Your task to perform on an android device: set the stopwatch Image 0: 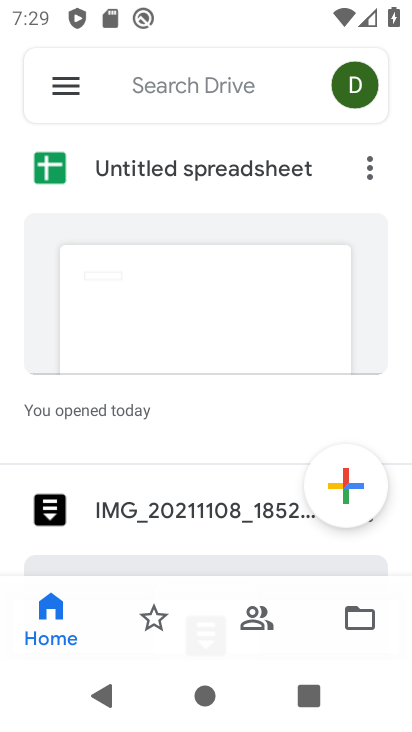
Step 0: press home button
Your task to perform on an android device: set the stopwatch Image 1: 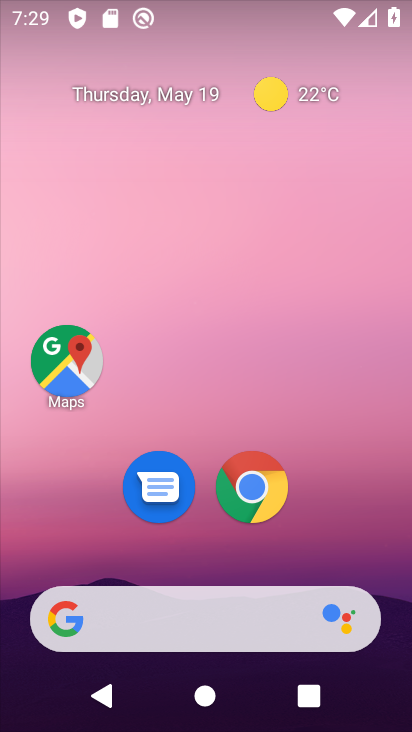
Step 1: drag from (320, 213) to (378, 47)
Your task to perform on an android device: set the stopwatch Image 2: 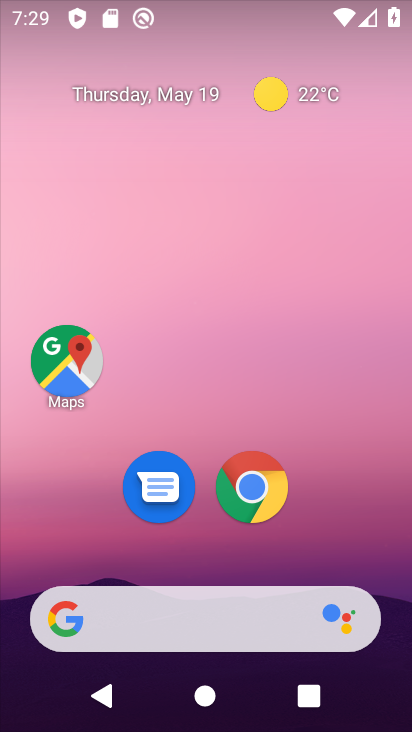
Step 2: drag from (200, 602) to (353, 112)
Your task to perform on an android device: set the stopwatch Image 3: 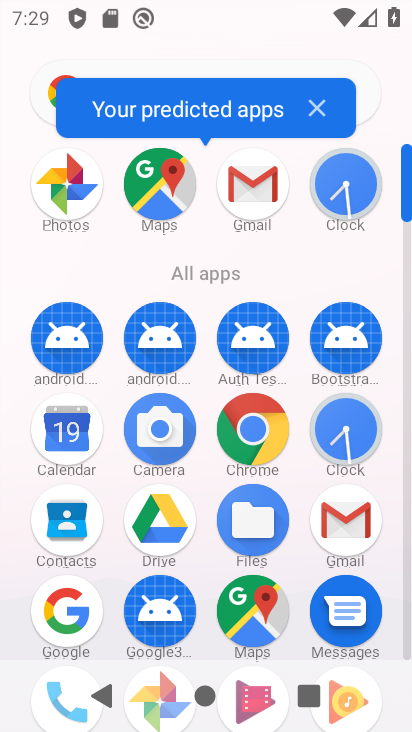
Step 3: click (344, 199)
Your task to perform on an android device: set the stopwatch Image 4: 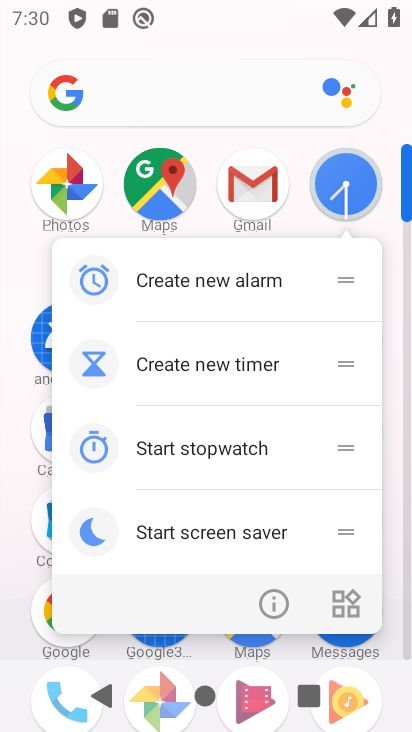
Step 4: click (345, 196)
Your task to perform on an android device: set the stopwatch Image 5: 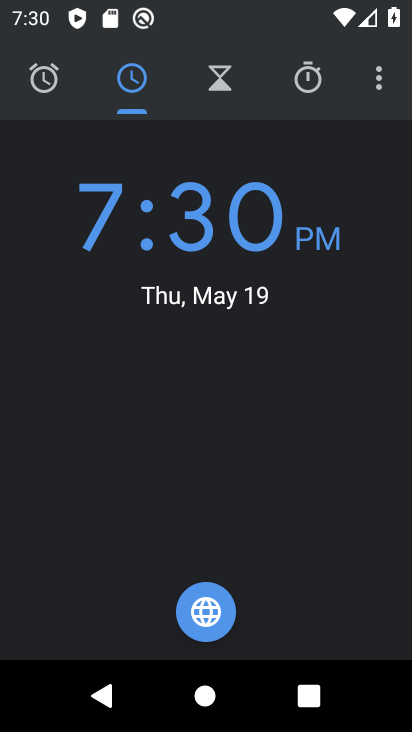
Step 5: click (311, 79)
Your task to perform on an android device: set the stopwatch Image 6: 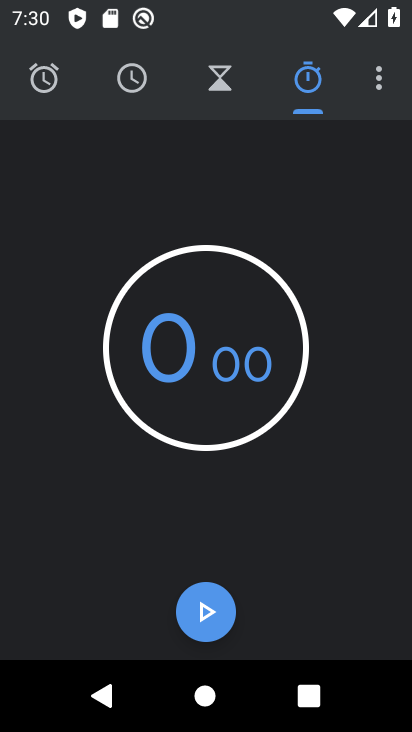
Step 6: click (211, 347)
Your task to perform on an android device: set the stopwatch Image 7: 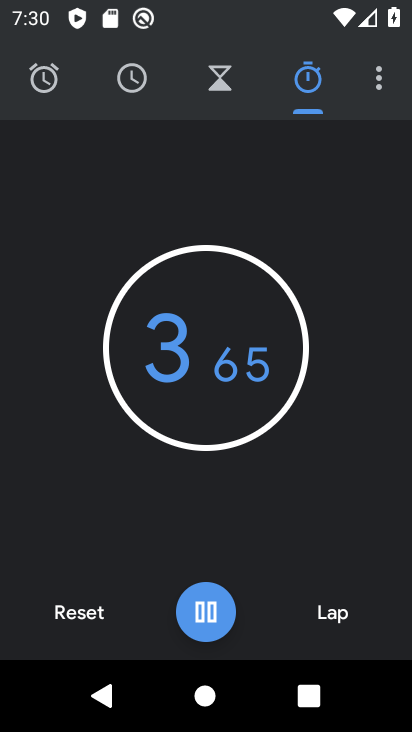
Step 7: click (211, 348)
Your task to perform on an android device: set the stopwatch Image 8: 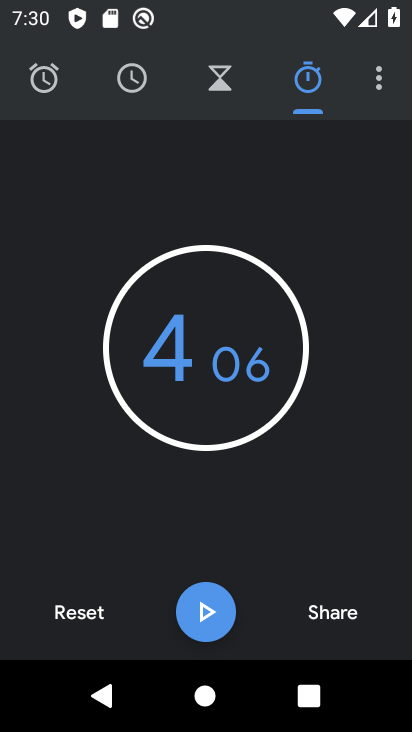
Step 8: task complete